Your task to perform on an android device: turn on wifi Image 0: 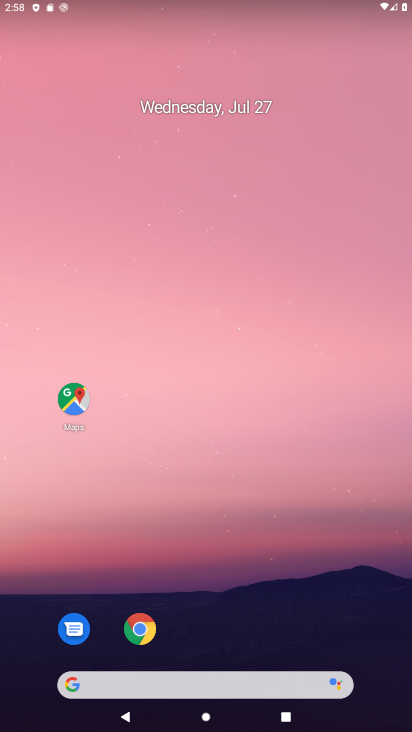
Step 0: press home button
Your task to perform on an android device: turn on wifi Image 1: 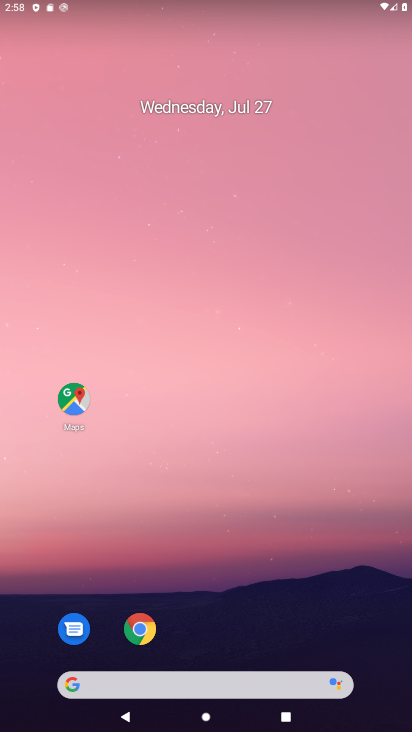
Step 1: task complete